Your task to perform on an android device: turn on showing notifications on the lock screen Image 0: 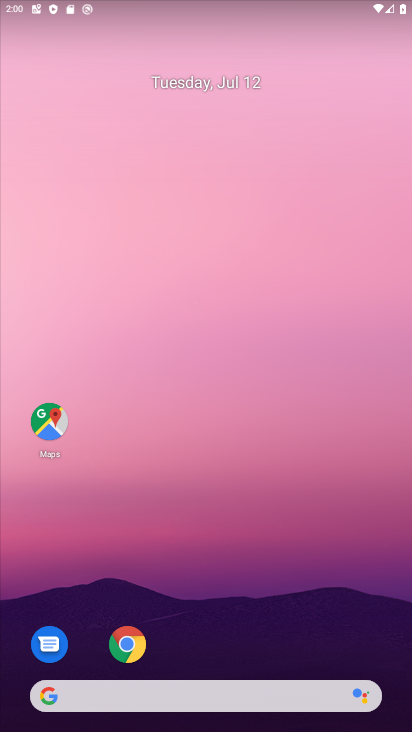
Step 0: drag from (217, 673) to (117, 171)
Your task to perform on an android device: turn on showing notifications on the lock screen Image 1: 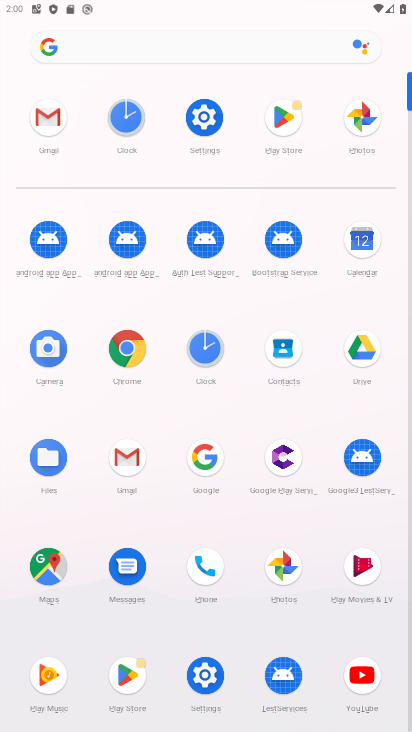
Step 1: click (199, 118)
Your task to perform on an android device: turn on showing notifications on the lock screen Image 2: 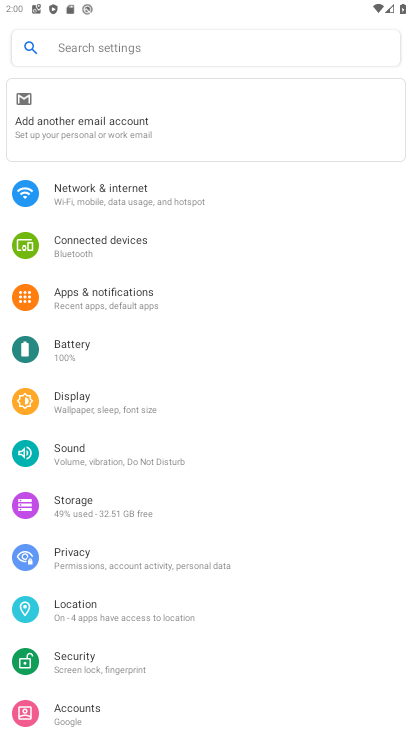
Step 2: click (55, 304)
Your task to perform on an android device: turn on showing notifications on the lock screen Image 3: 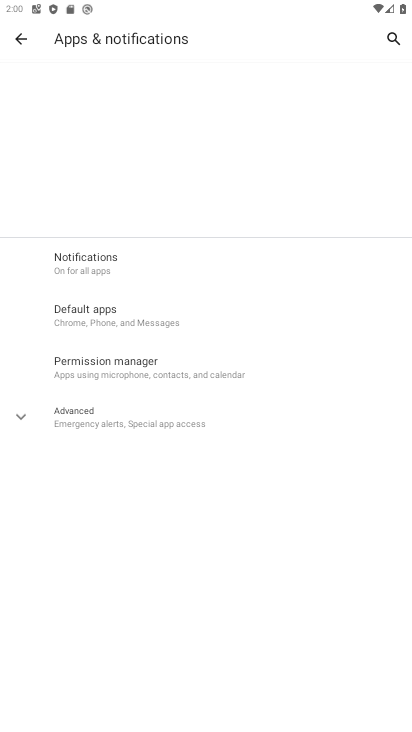
Step 3: click (87, 267)
Your task to perform on an android device: turn on showing notifications on the lock screen Image 4: 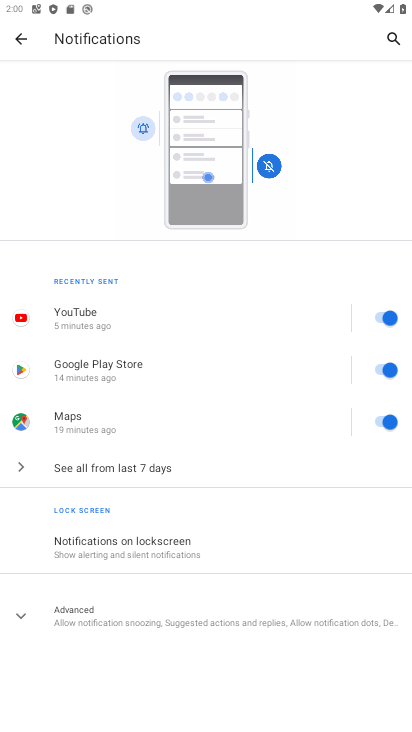
Step 4: click (131, 558)
Your task to perform on an android device: turn on showing notifications on the lock screen Image 5: 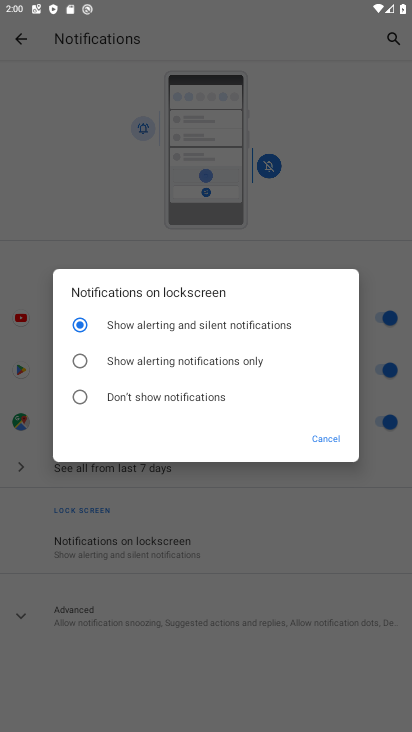
Step 5: click (153, 334)
Your task to perform on an android device: turn on showing notifications on the lock screen Image 6: 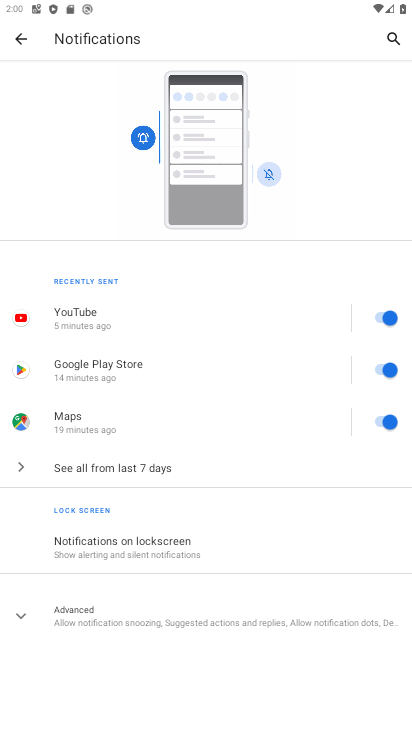
Step 6: task complete